Your task to perform on an android device: What's the weather today? Image 0: 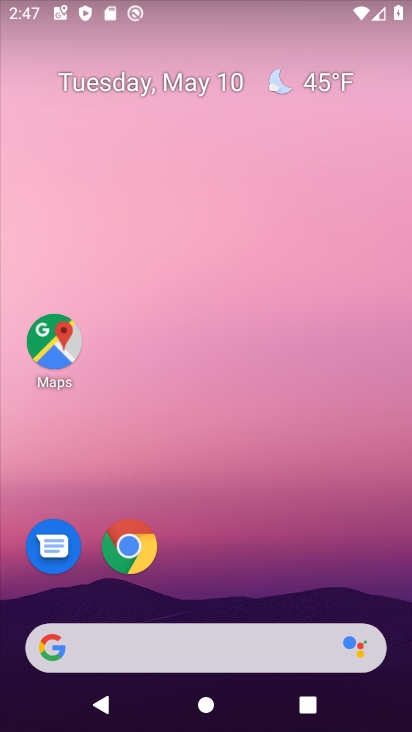
Step 0: drag from (246, 540) to (194, 16)
Your task to perform on an android device: What's the weather today? Image 1: 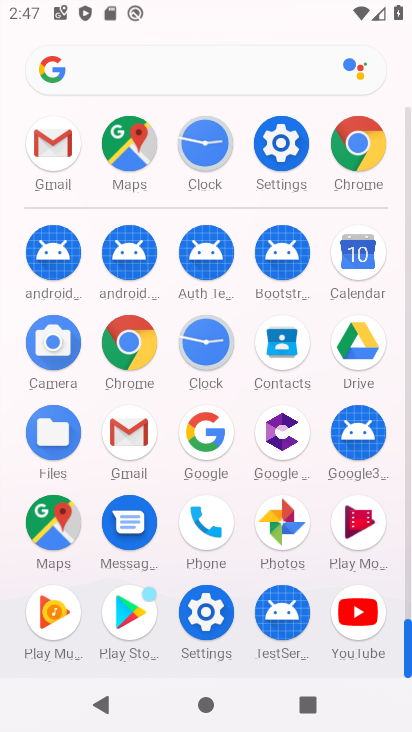
Step 1: drag from (6, 532) to (6, 191)
Your task to perform on an android device: What's the weather today? Image 2: 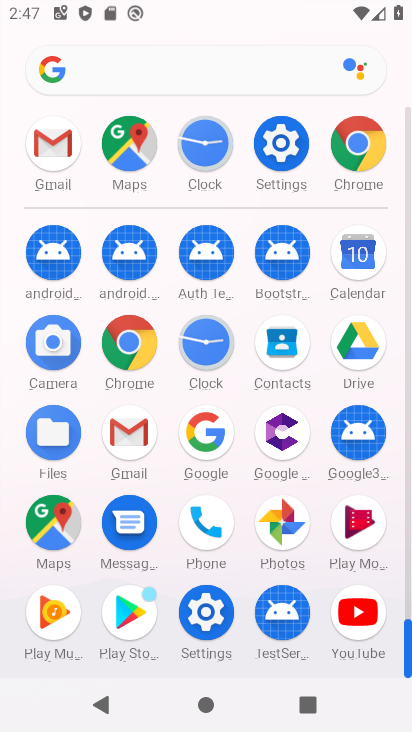
Step 2: click (117, 344)
Your task to perform on an android device: What's the weather today? Image 3: 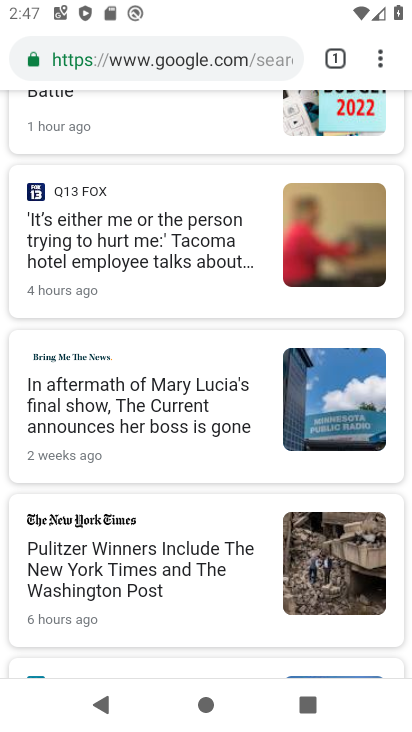
Step 3: drag from (196, 152) to (185, 504)
Your task to perform on an android device: What's the weather today? Image 4: 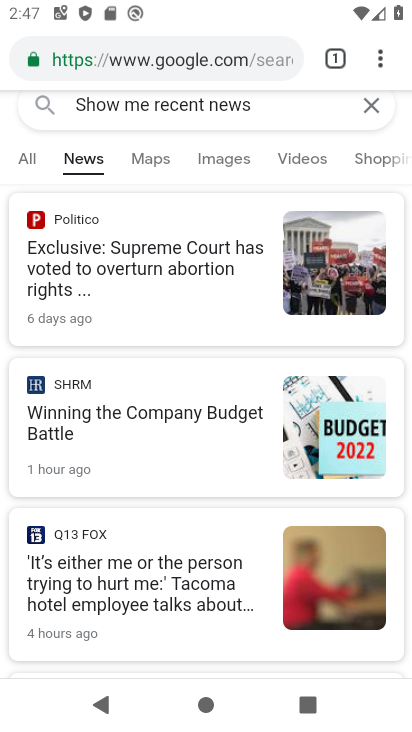
Step 4: click (194, 48)
Your task to perform on an android device: What's the weather today? Image 5: 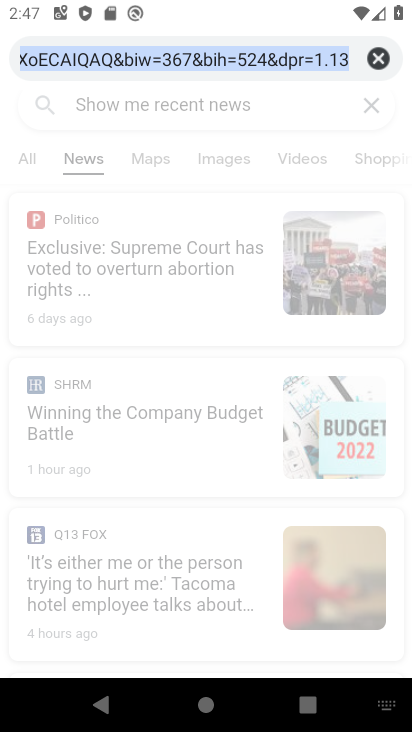
Step 5: click (376, 53)
Your task to perform on an android device: What's the weather today? Image 6: 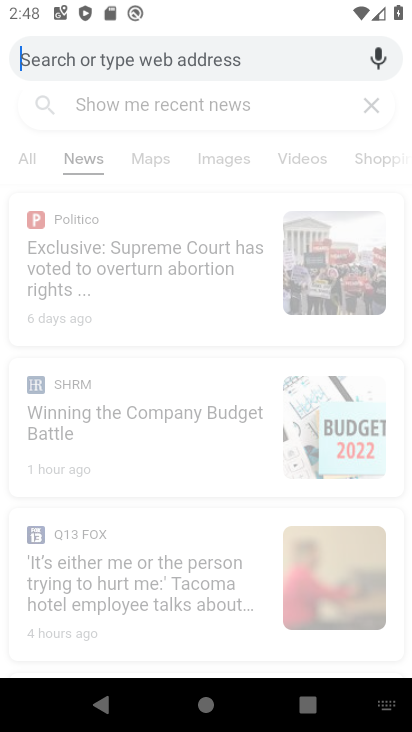
Step 6: type "What's the weather today?"
Your task to perform on an android device: What's the weather today? Image 7: 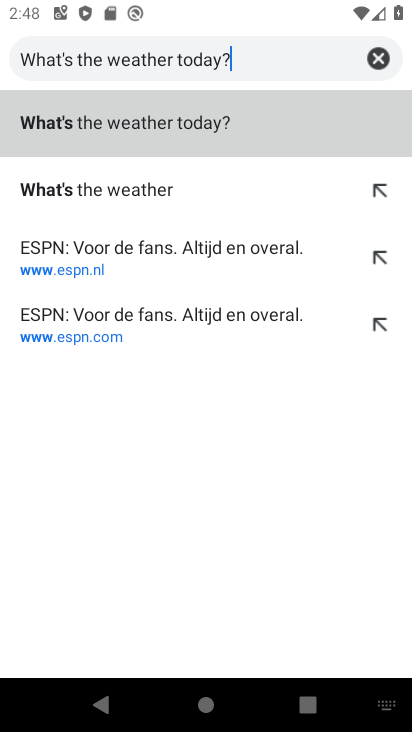
Step 7: type ""
Your task to perform on an android device: What's the weather today? Image 8: 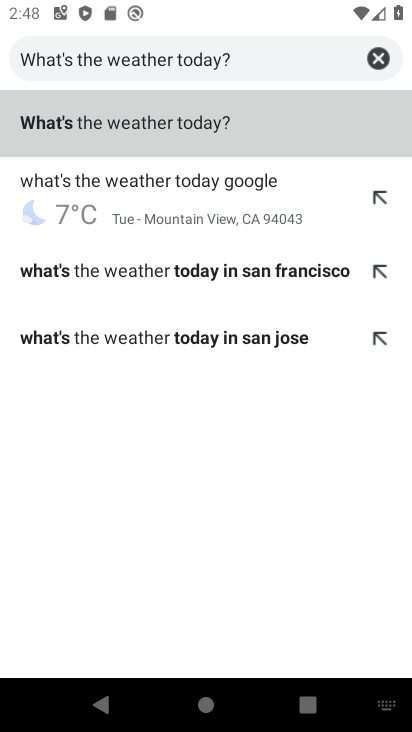
Step 8: click (118, 115)
Your task to perform on an android device: What's the weather today? Image 9: 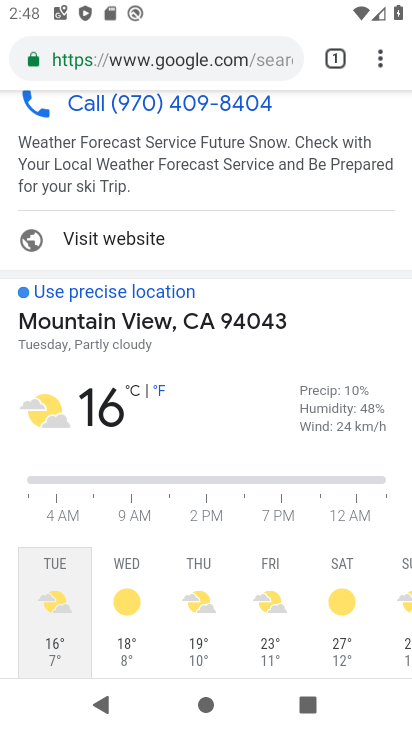
Step 9: task complete